Your task to perform on an android device: turn on the 12-hour format for clock Image 0: 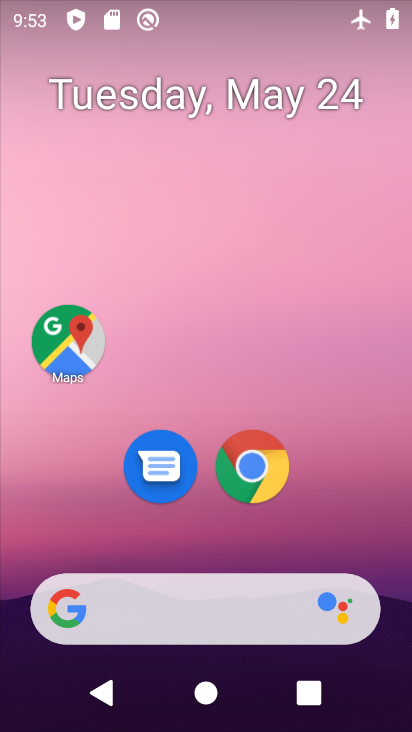
Step 0: drag from (195, 517) to (303, 2)
Your task to perform on an android device: turn on the 12-hour format for clock Image 1: 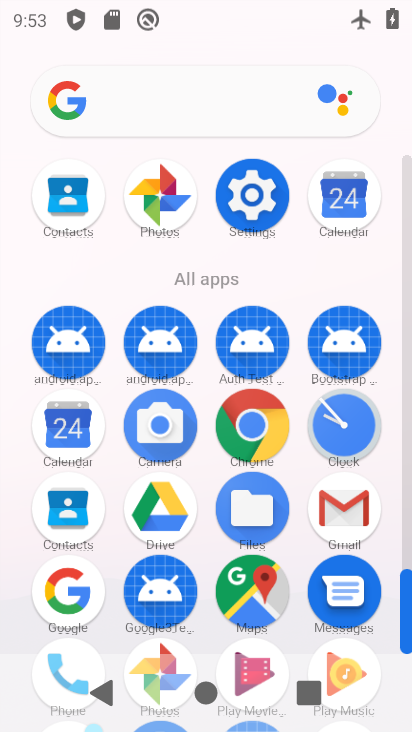
Step 1: click (347, 428)
Your task to perform on an android device: turn on the 12-hour format for clock Image 2: 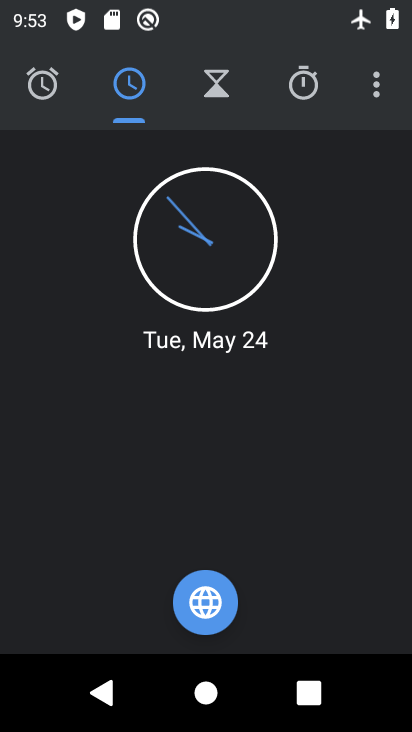
Step 2: click (383, 92)
Your task to perform on an android device: turn on the 12-hour format for clock Image 3: 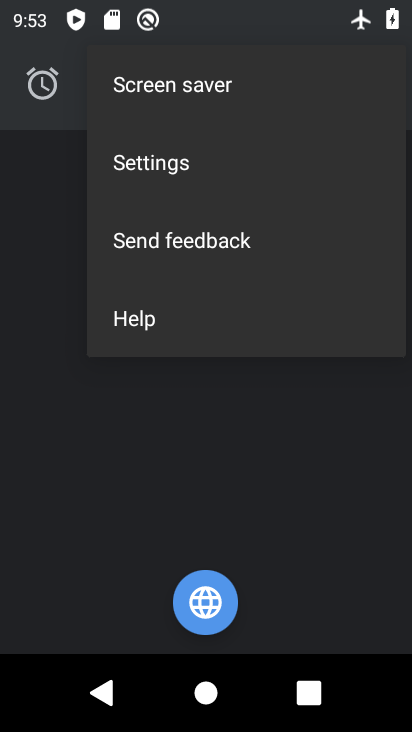
Step 3: press home button
Your task to perform on an android device: turn on the 12-hour format for clock Image 4: 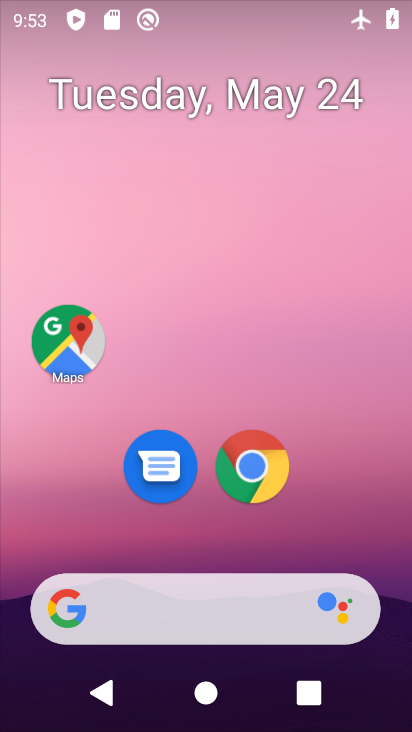
Step 4: drag from (196, 541) to (244, 16)
Your task to perform on an android device: turn on the 12-hour format for clock Image 5: 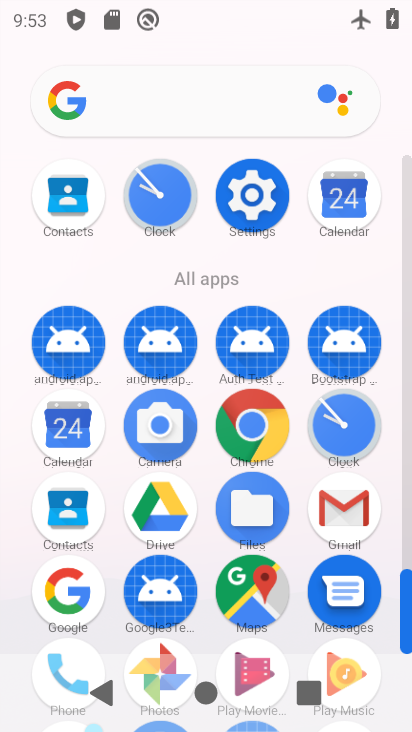
Step 5: click (265, 201)
Your task to perform on an android device: turn on the 12-hour format for clock Image 6: 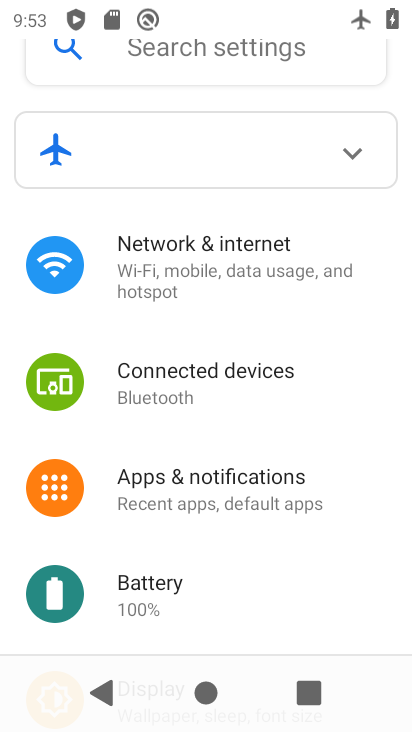
Step 6: drag from (206, 565) to (216, 126)
Your task to perform on an android device: turn on the 12-hour format for clock Image 7: 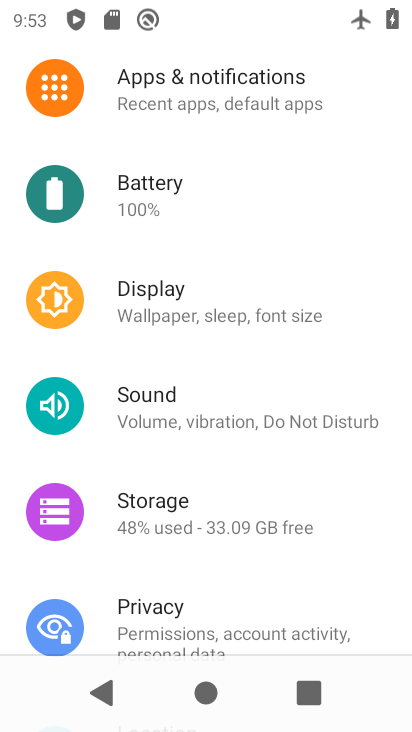
Step 7: drag from (185, 576) to (228, 300)
Your task to perform on an android device: turn on the 12-hour format for clock Image 8: 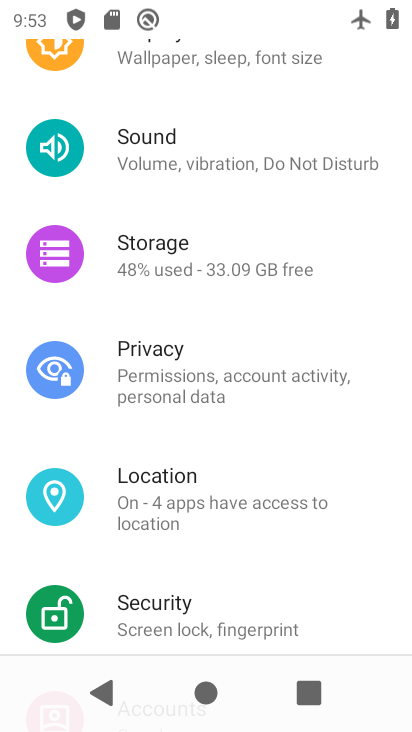
Step 8: drag from (198, 545) to (311, 10)
Your task to perform on an android device: turn on the 12-hour format for clock Image 9: 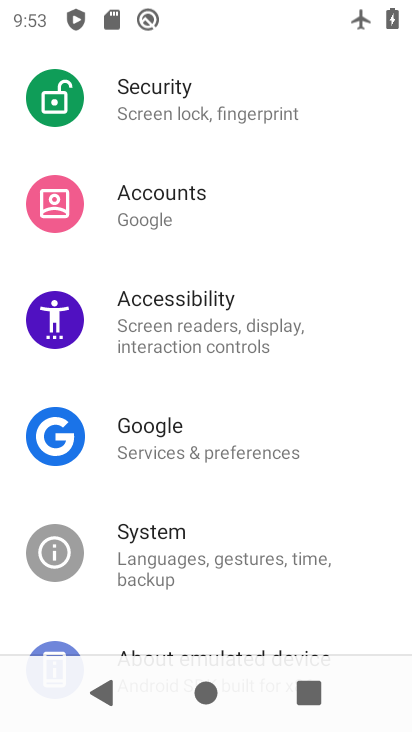
Step 9: click (210, 568)
Your task to perform on an android device: turn on the 12-hour format for clock Image 10: 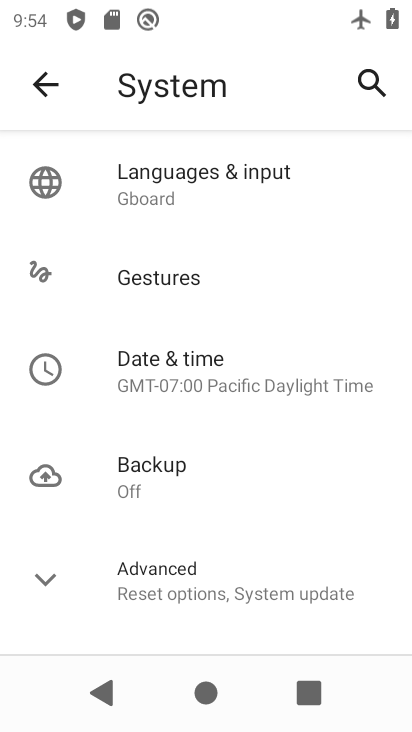
Step 10: click (186, 387)
Your task to perform on an android device: turn on the 12-hour format for clock Image 11: 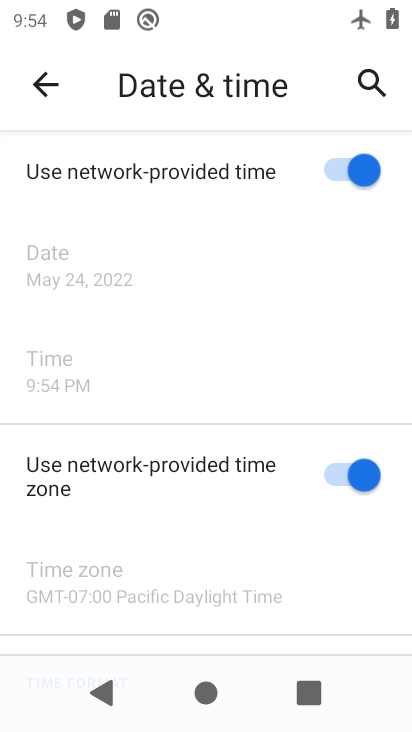
Step 11: task complete